Your task to perform on an android device: Open calendar and show me the third week of next month Image 0: 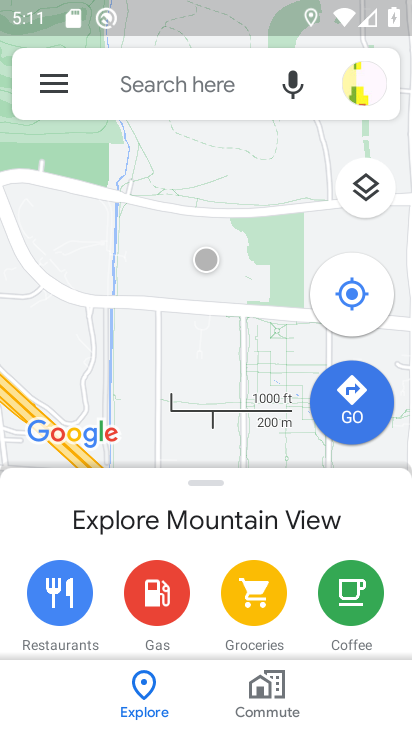
Step 0: press home button
Your task to perform on an android device: Open calendar and show me the third week of next month Image 1: 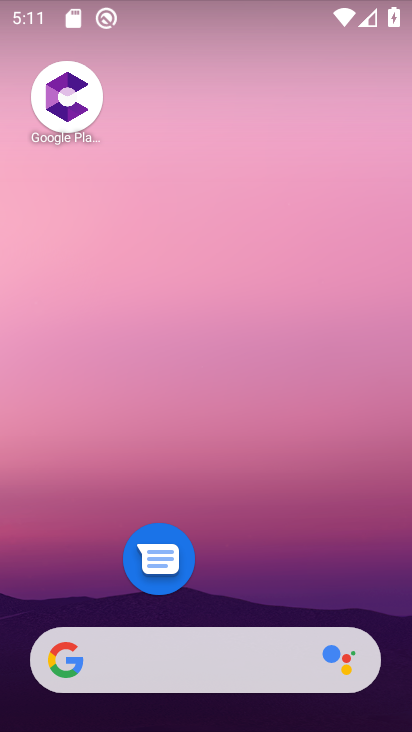
Step 1: drag from (220, 679) to (235, 344)
Your task to perform on an android device: Open calendar and show me the third week of next month Image 2: 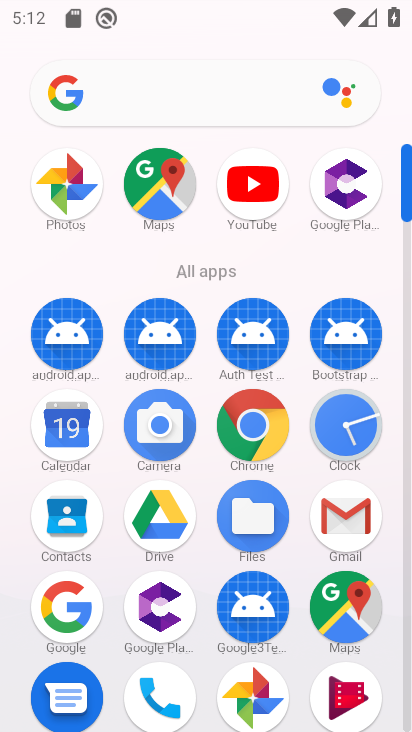
Step 2: drag from (293, 582) to (256, 331)
Your task to perform on an android device: Open calendar and show me the third week of next month Image 3: 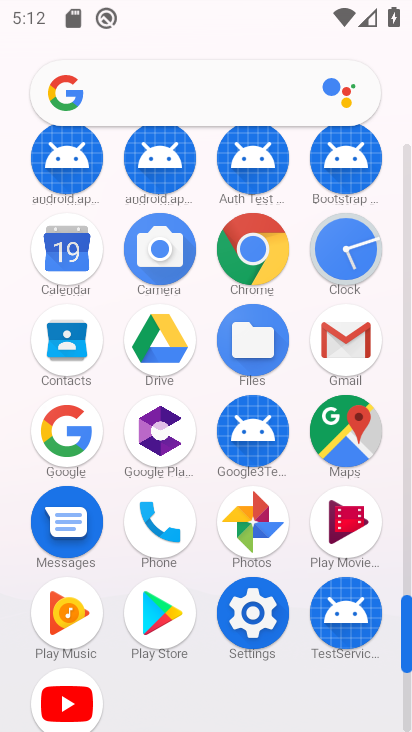
Step 3: click (77, 275)
Your task to perform on an android device: Open calendar and show me the third week of next month Image 4: 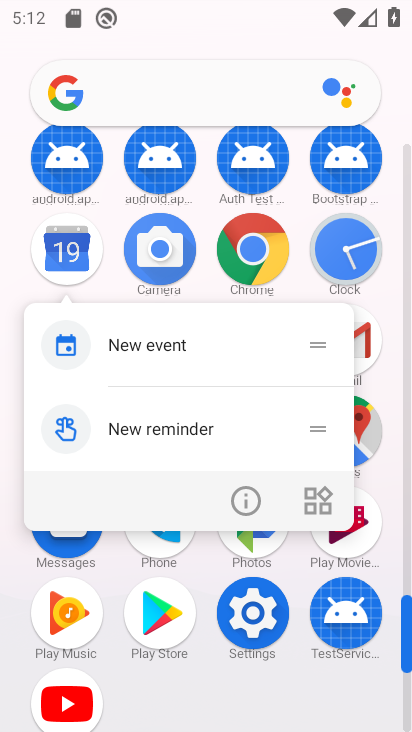
Step 4: click (57, 263)
Your task to perform on an android device: Open calendar and show me the third week of next month Image 5: 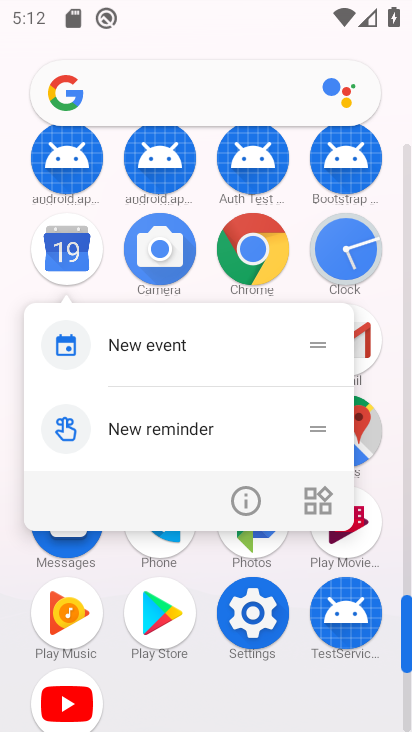
Step 5: click (57, 263)
Your task to perform on an android device: Open calendar and show me the third week of next month Image 6: 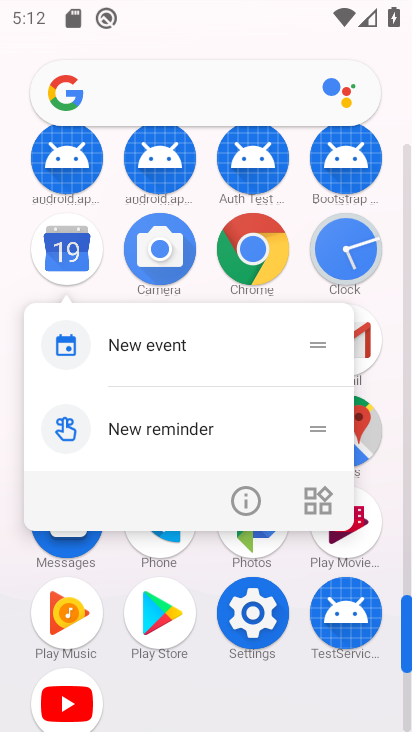
Step 6: click (57, 263)
Your task to perform on an android device: Open calendar and show me the third week of next month Image 7: 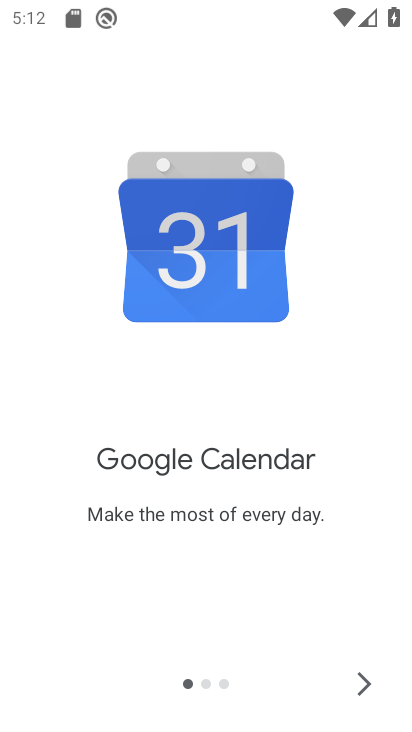
Step 7: click (373, 696)
Your task to perform on an android device: Open calendar and show me the third week of next month Image 8: 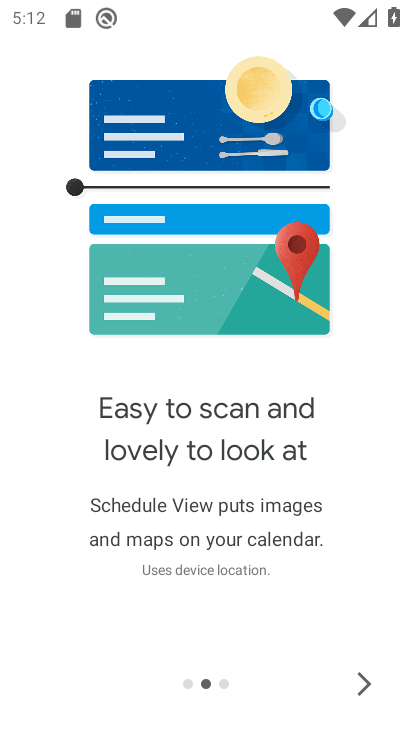
Step 8: click (373, 696)
Your task to perform on an android device: Open calendar and show me the third week of next month Image 9: 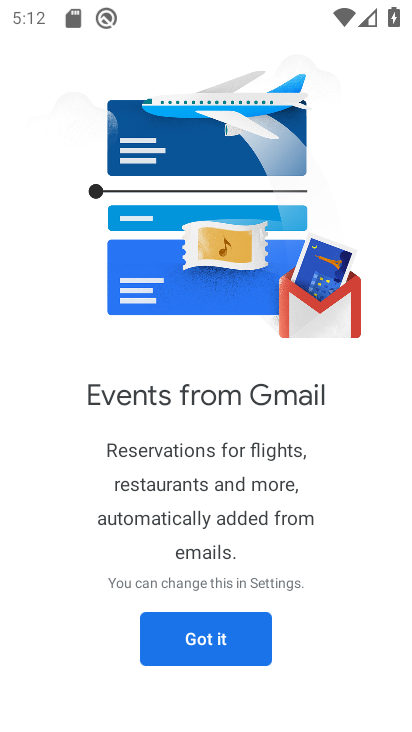
Step 9: click (179, 639)
Your task to perform on an android device: Open calendar and show me the third week of next month Image 10: 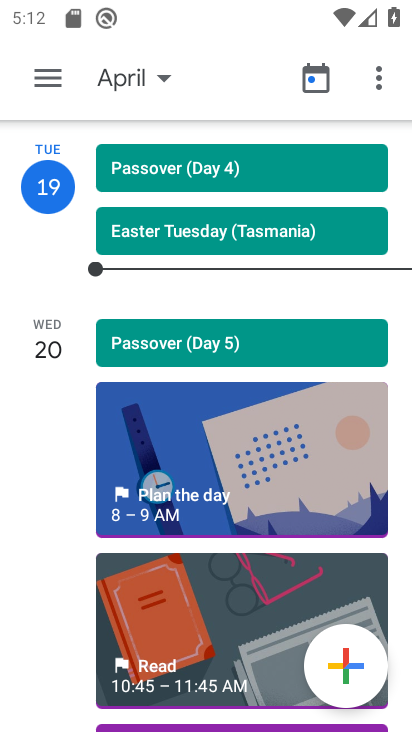
Step 10: drag from (251, 706) to (155, 314)
Your task to perform on an android device: Open calendar and show me the third week of next month Image 11: 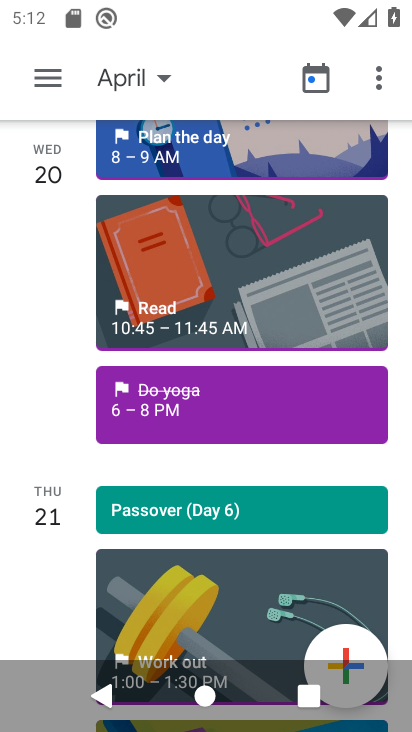
Step 11: drag from (188, 605) to (182, 288)
Your task to perform on an android device: Open calendar and show me the third week of next month Image 12: 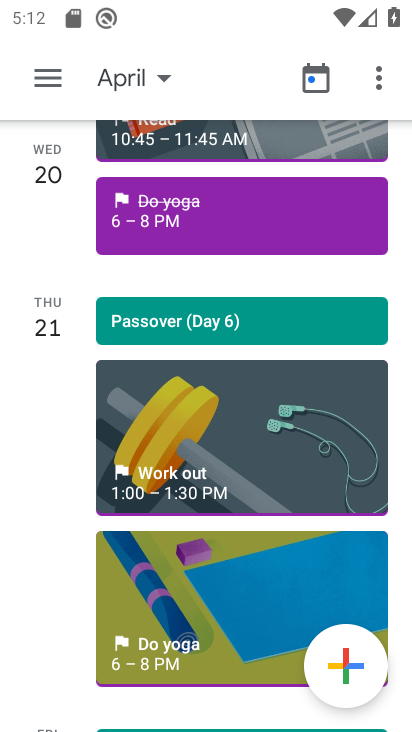
Step 12: click (161, 76)
Your task to perform on an android device: Open calendar and show me the third week of next month Image 13: 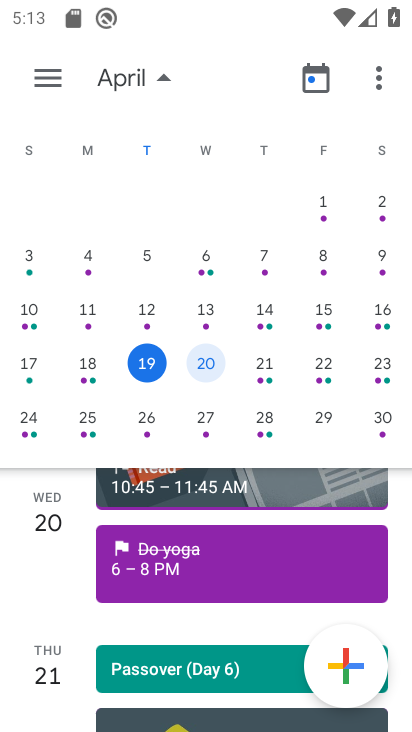
Step 13: drag from (383, 374) to (85, 374)
Your task to perform on an android device: Open calendar and show me the third week of next month Image 14: 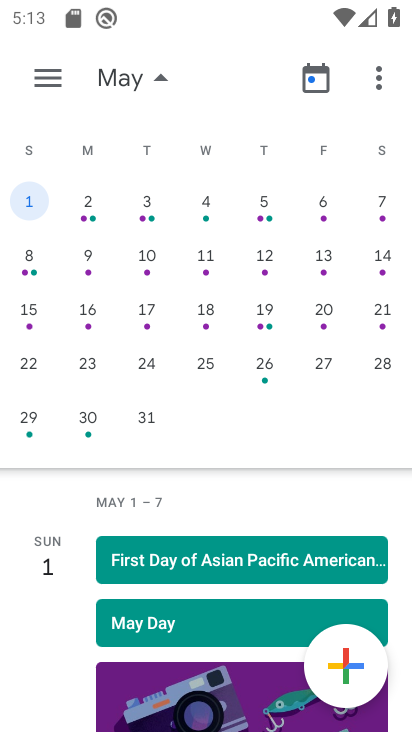
Step 14: click (149, 308)
Your task to perform on an android device: Open calendar and show me the third week of next month Image 15: 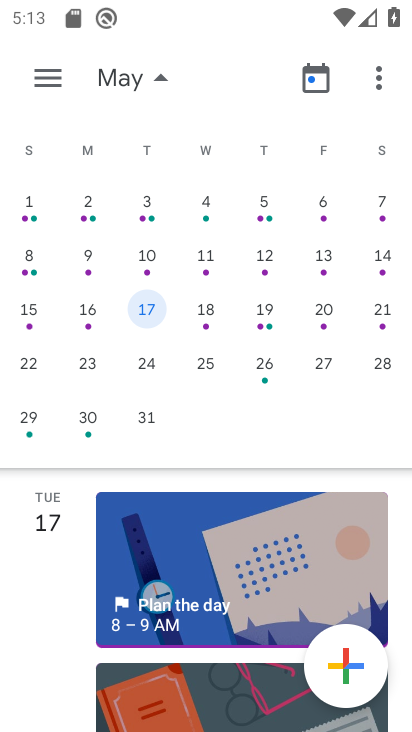
Step 15: task complete